Your task to perform on an android device: Search for top rated pizza restaurants on Maps Image 0: 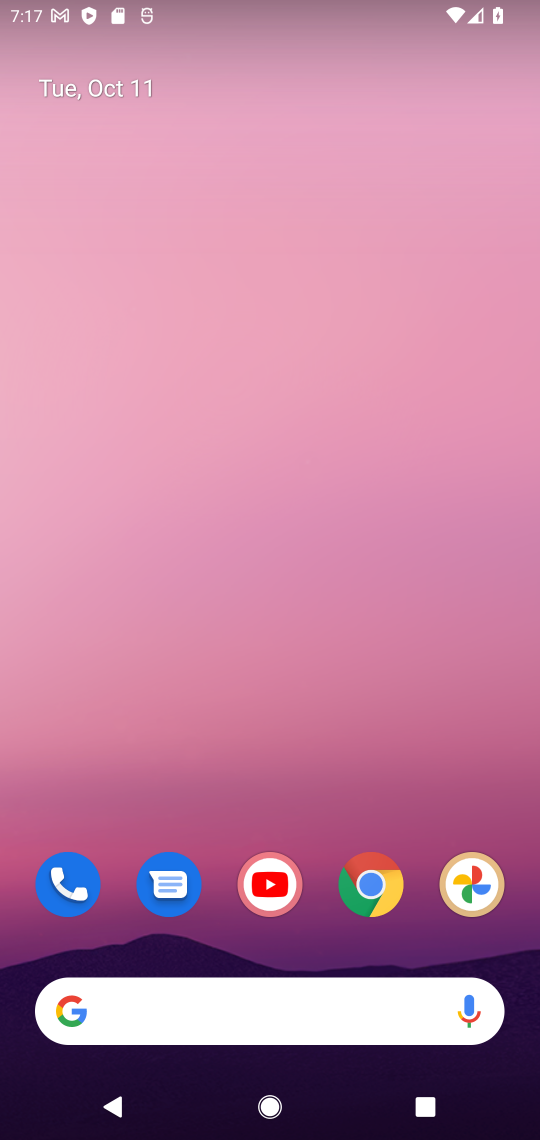
Step 0: drag from (326, 837) to (311, 318)
Your task to perform on an android device: Search for top rated pizza restaurants on Maps Image 1: 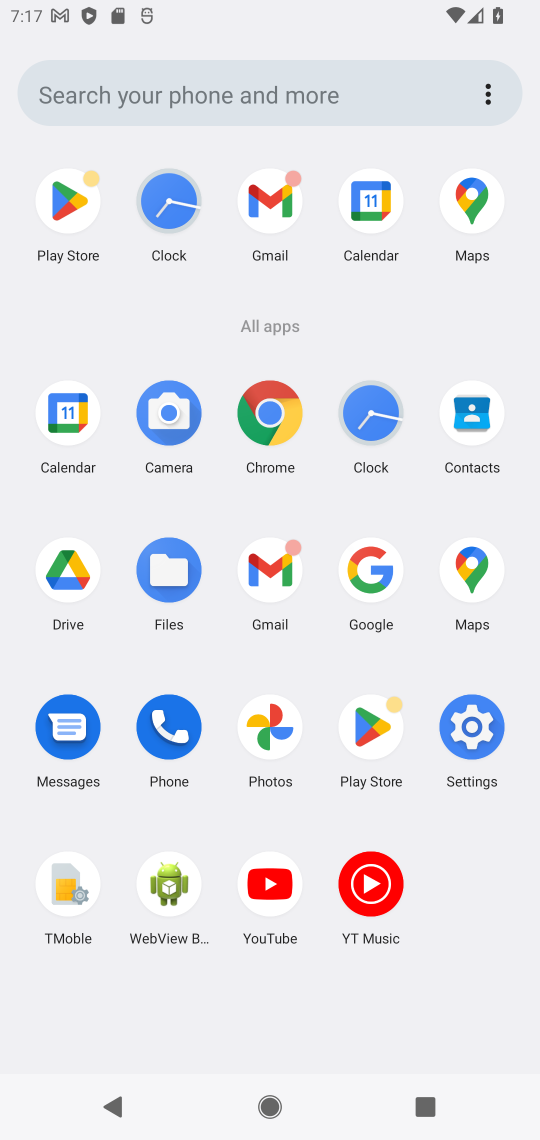
Step 1: click (482, 192)
Your task to perform on an android device: Search for top rated pizza restaurants on Maps Image 2: 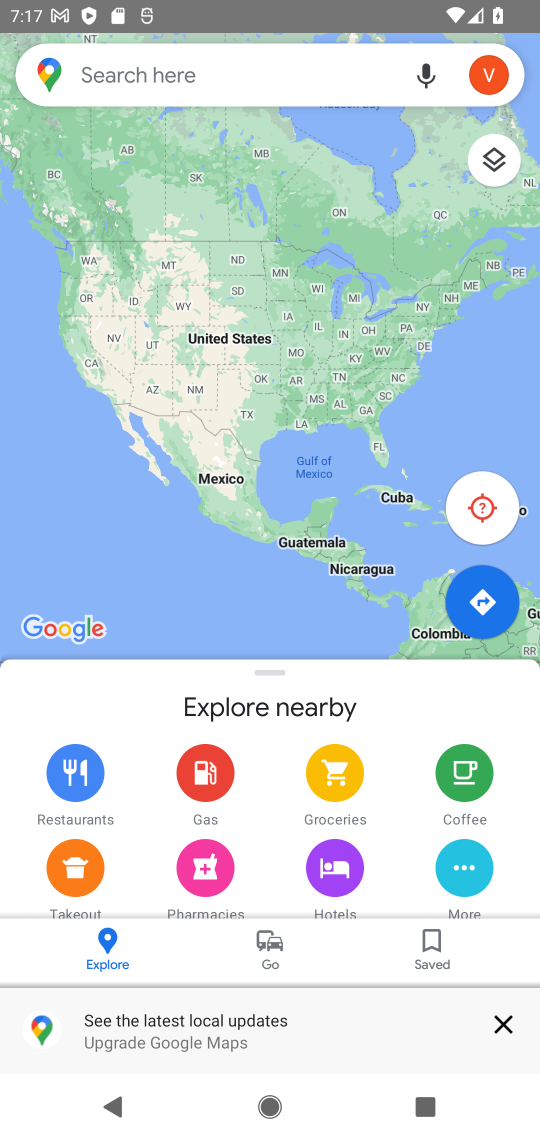
Step 2: click (236, 69)
Your task to perform on an android device: Search for top rated pizza restaurants on Maps Image 3: 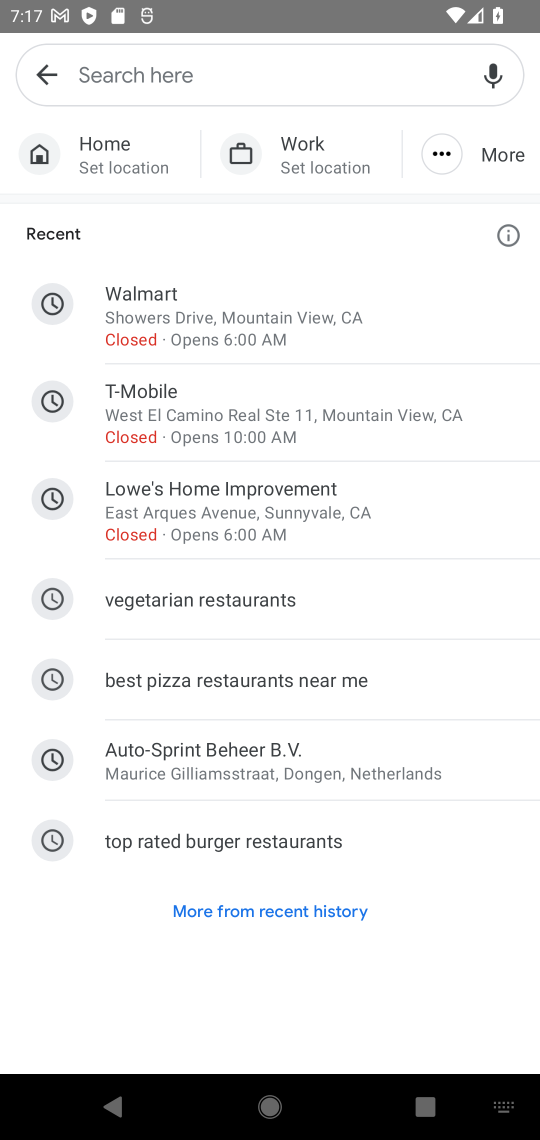
Step 3: type "top rated pizza restaurants"
Your task to perform on an android device: Search for top rated pizza restaurants on Maps Image 4: 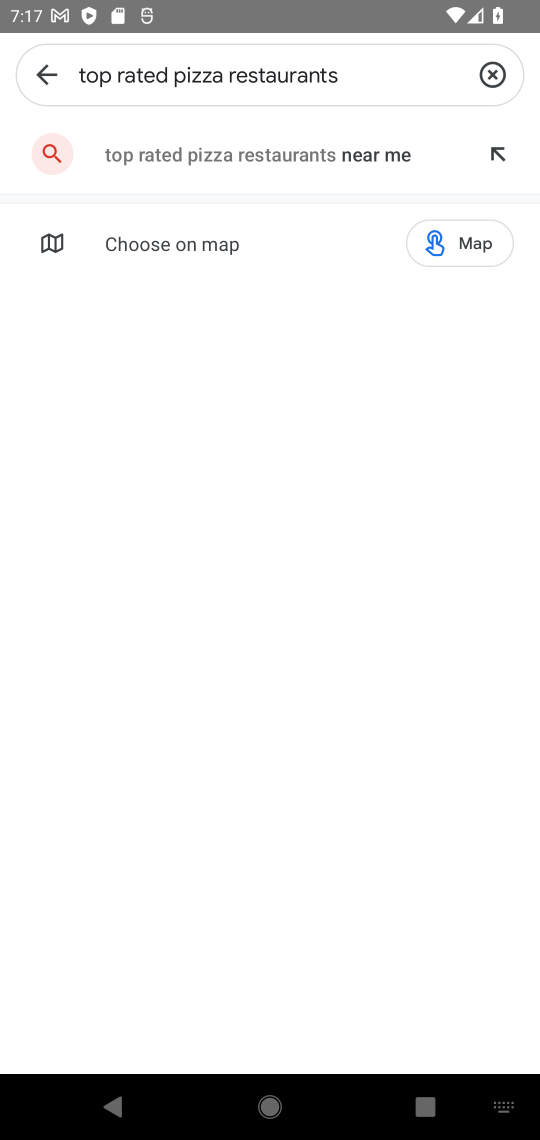
Step 4: press enter
Your task to perform on an android device: Search for top rated pizza restaurants on Maps Image 5: 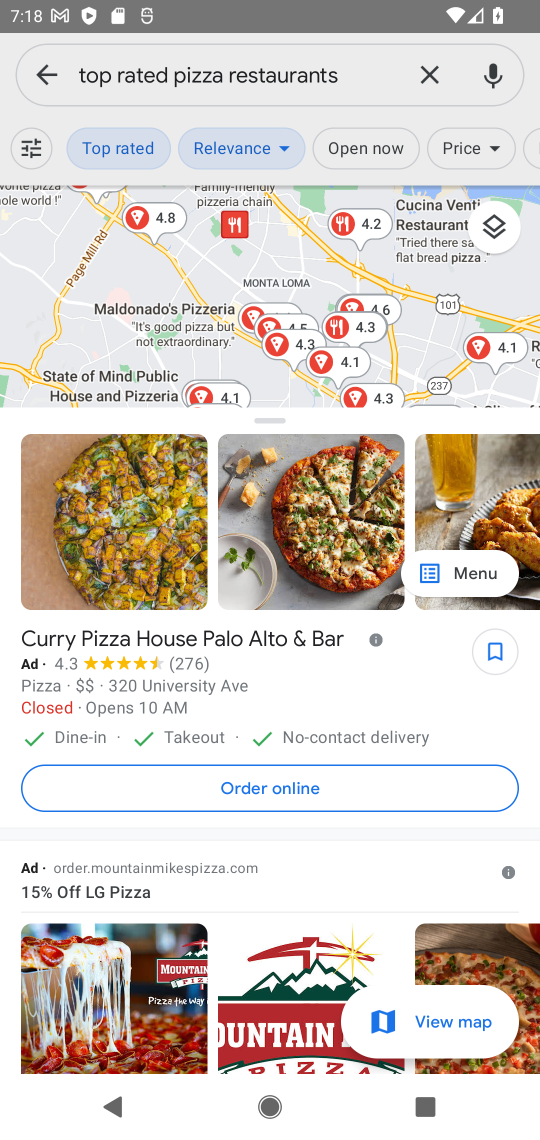
Step 5: task complete